Your task to perform on an android device: Show me recent news Image 0: 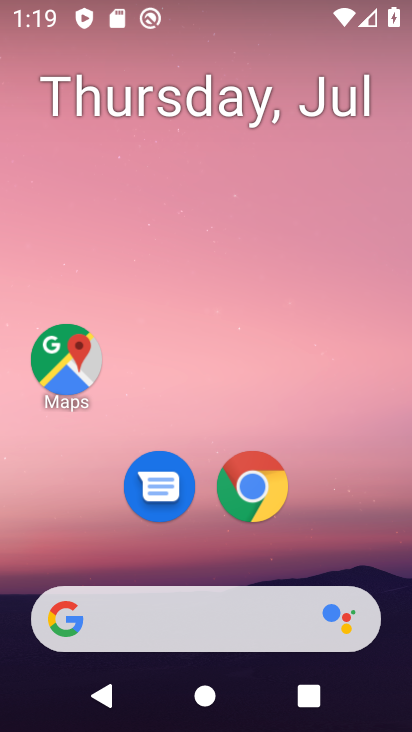
Step 0: click (161, 618)
Your task to perform on an android device: Show me recent news Image 1: 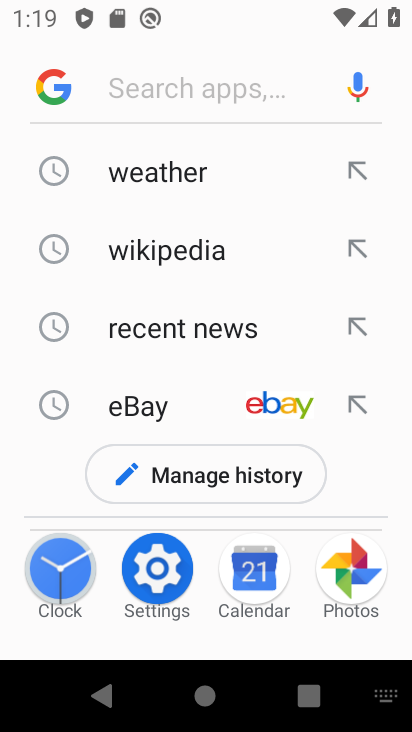
Step 1: click (143, 325)
Your task to perform on an android device: Show me recent news Image 2: 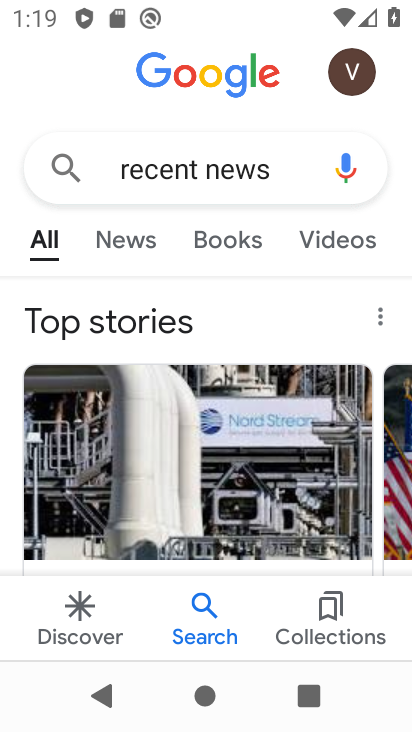
Step 2: task complete